Your task to perform on an android device: What's the weather? Image 0: 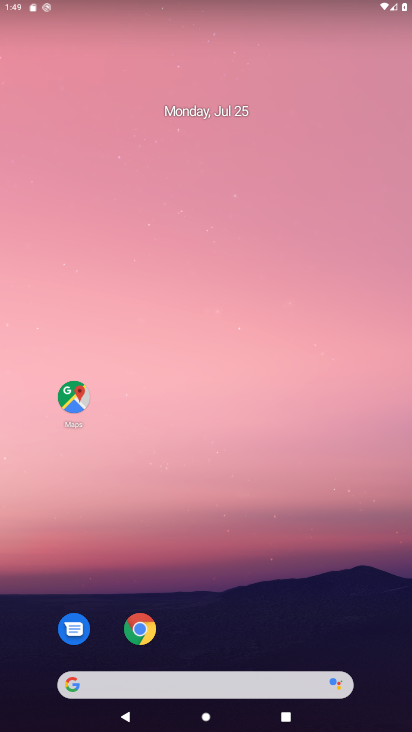
Step 0: drag from (315, 555) to (388, 104)
Your task to perform on an android device: What's the weather? Image 1: 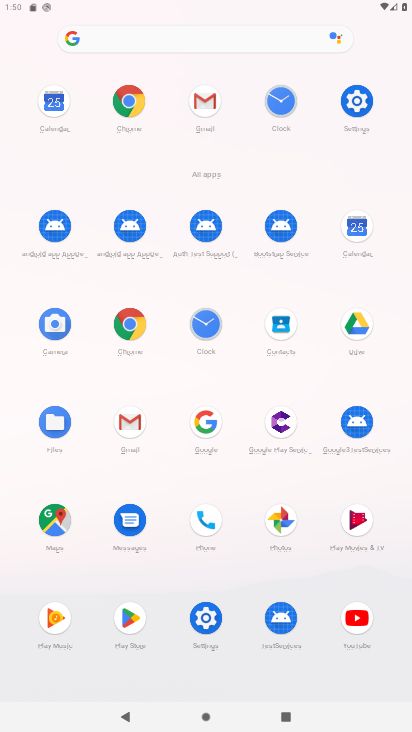
Step 1: click (212, 428)
Your task to perform on an android device: What's the weather? Image 2: 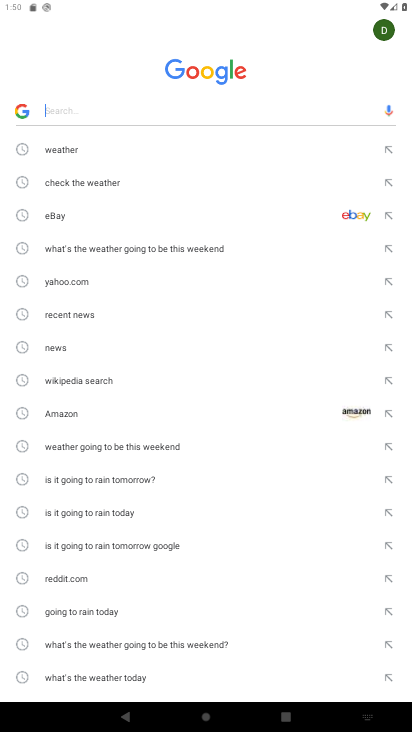
Step 2: click (59, 151)
Your task to perform on an android device: What's the weather? Image 3: 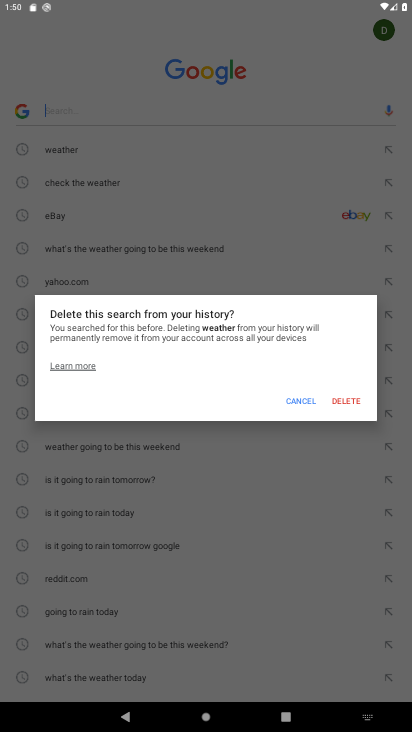
Step 3: click (295, 407)
Your task to perform on an android device: What's the weather? Image 4: 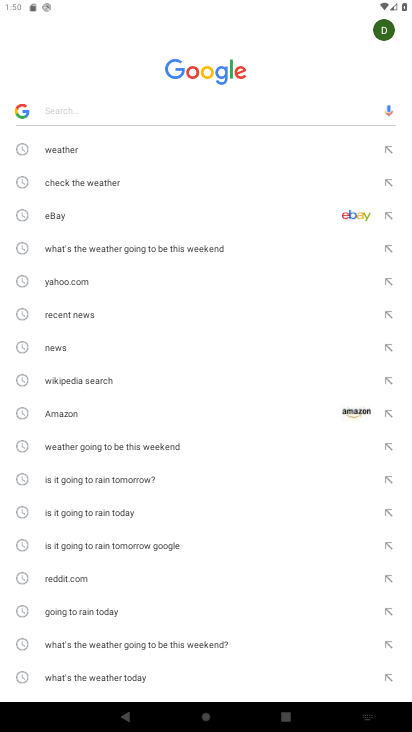
Step 4: click (56, 151)
Your task to perform on an android device: What's the weather? Image 5: 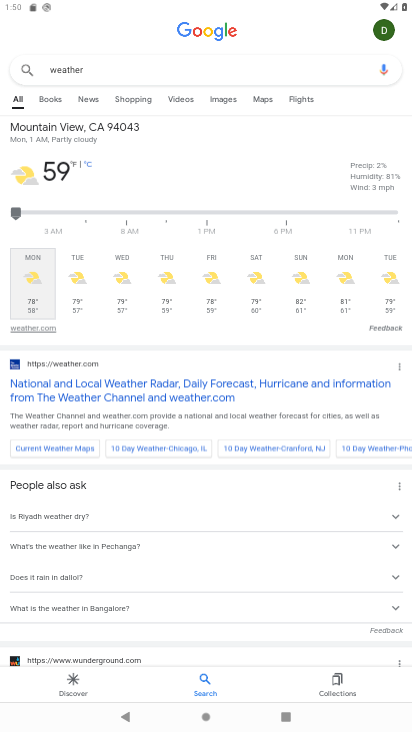
Step 5: task complete